Your task to perform on an android device: check google app version Image 0: 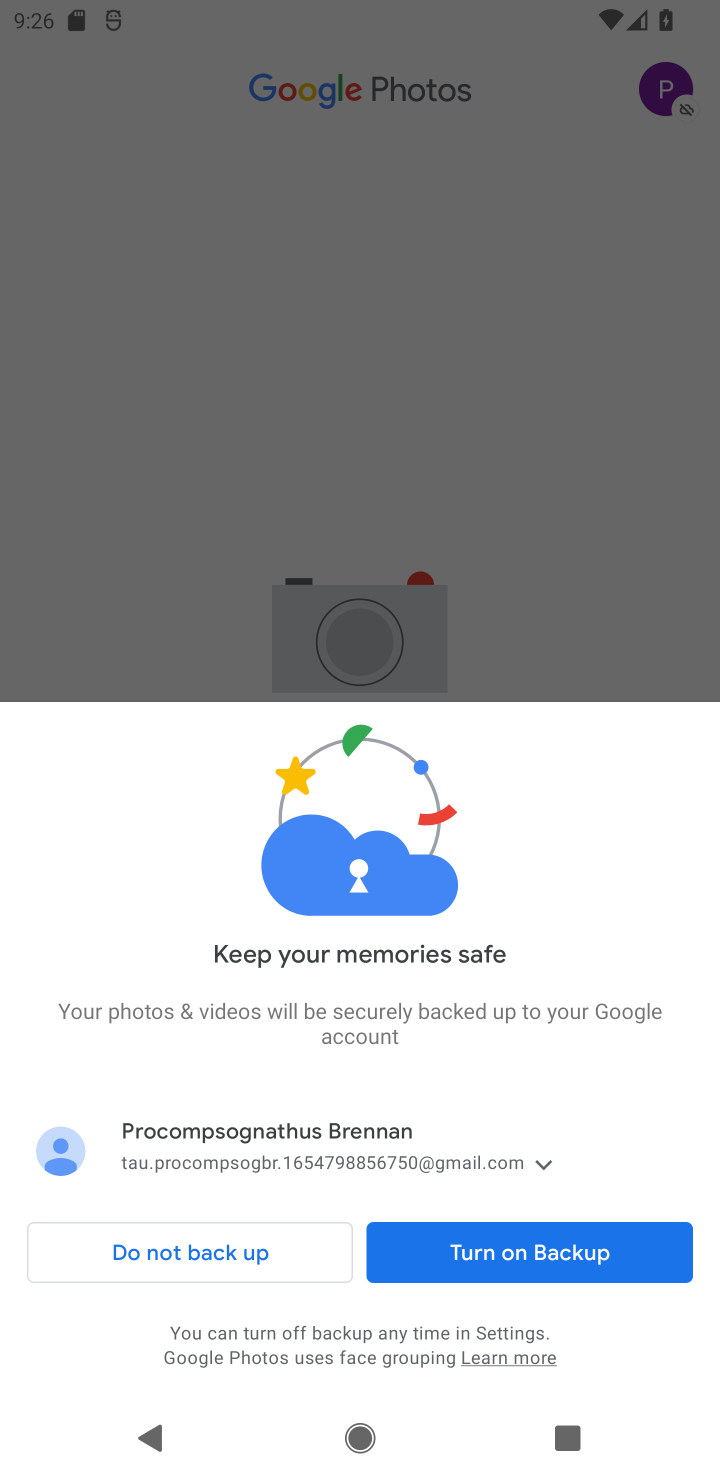
Step 0: click (556, 1256)
Your task to perform on an android device: check google app version Image 1: 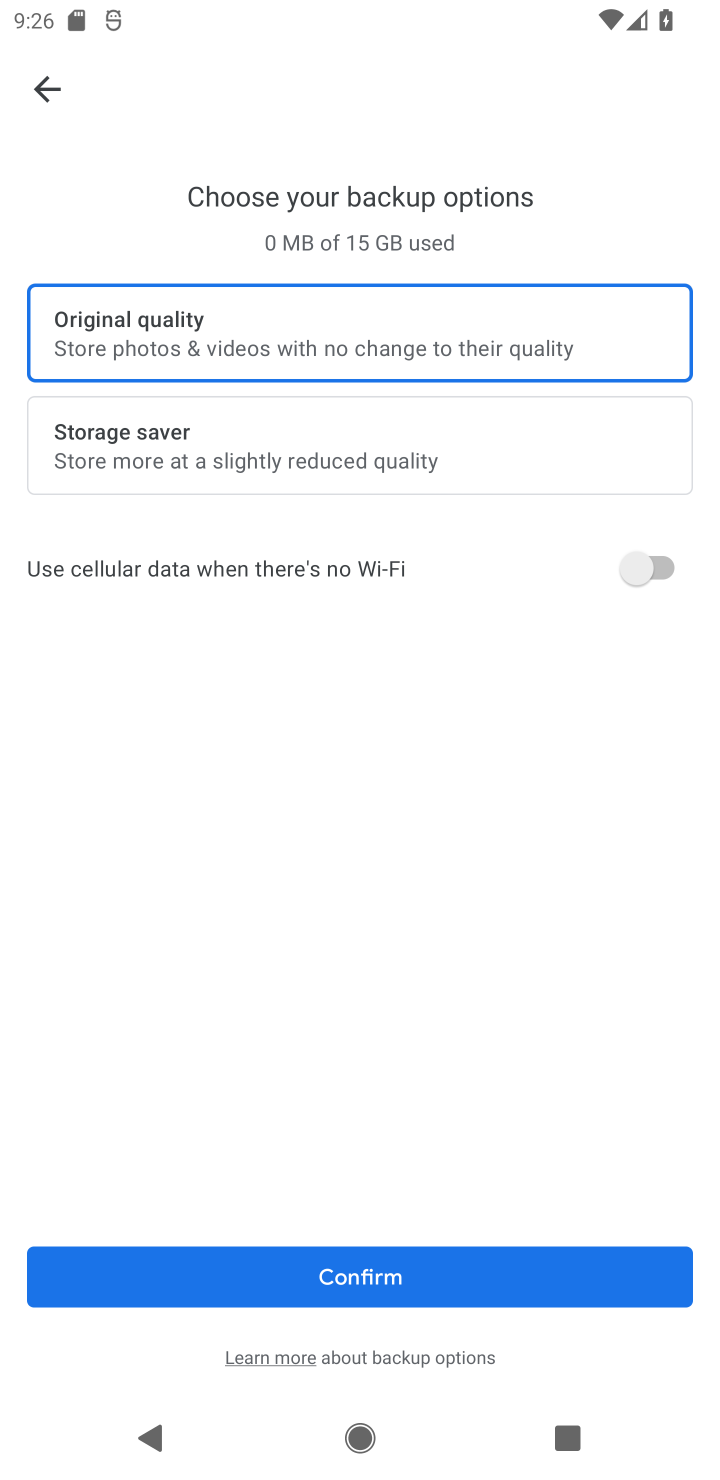
Step 1: click (417, 1283)
Your task to perform on an android device: check google app version Image 2: 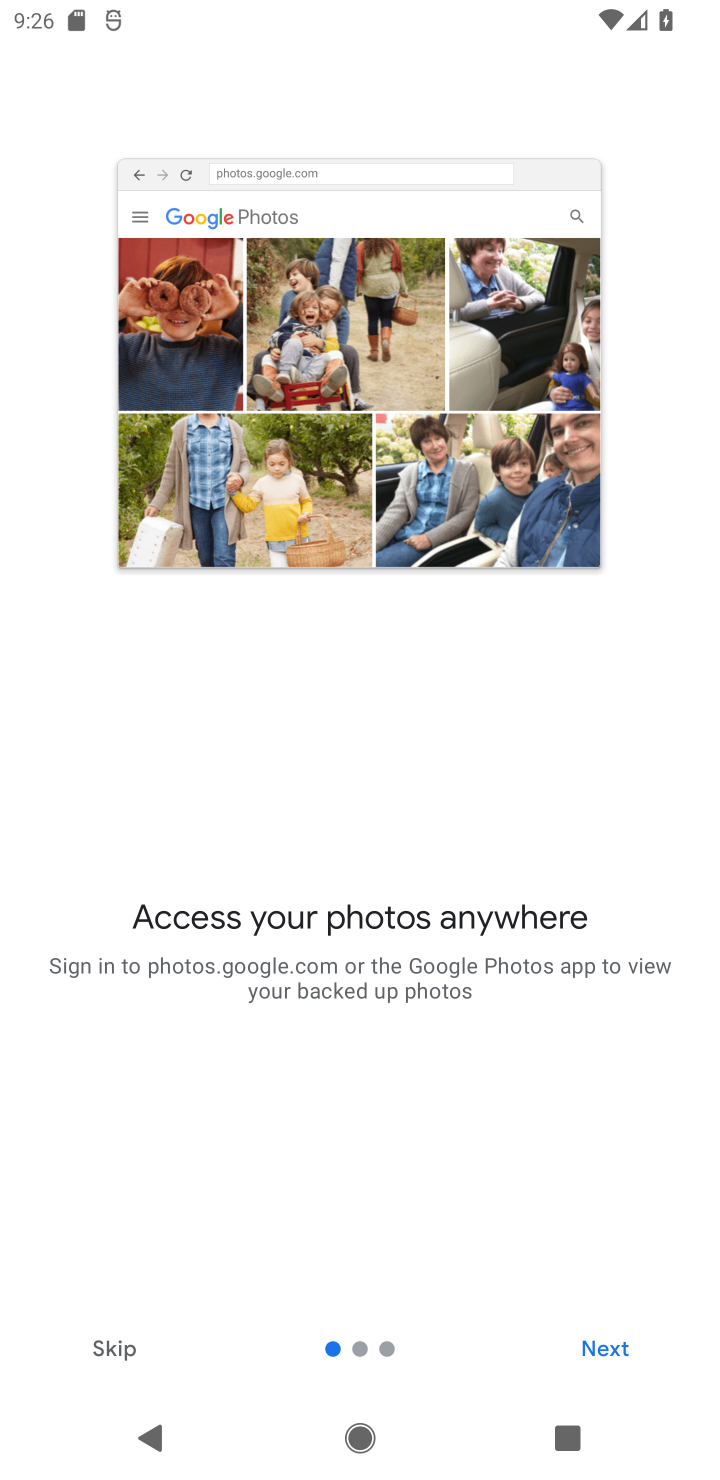
Step 2: press home button
Your task to perform on an android device: check google app version Image 3: 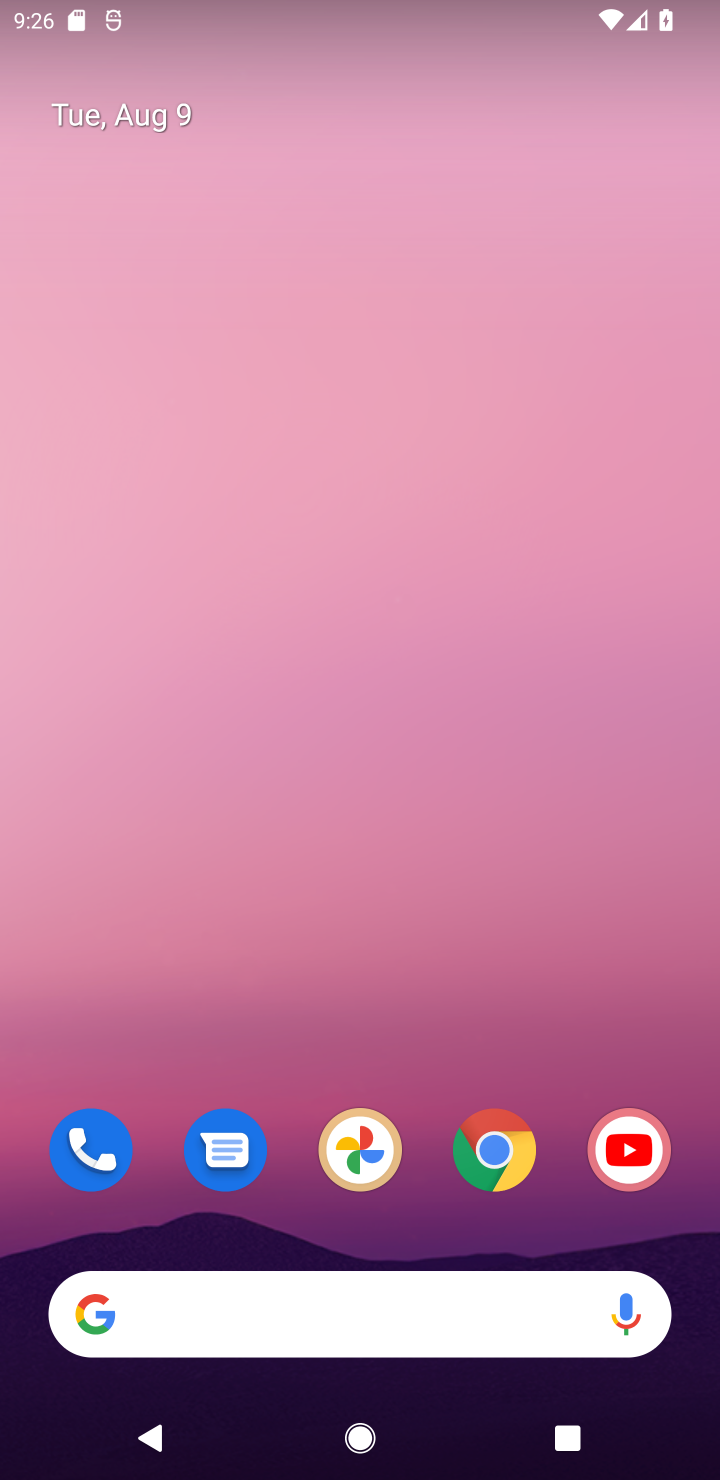
Step 3: click (496, 1138)
Your task to perform on an android device: check google app version Image 4: 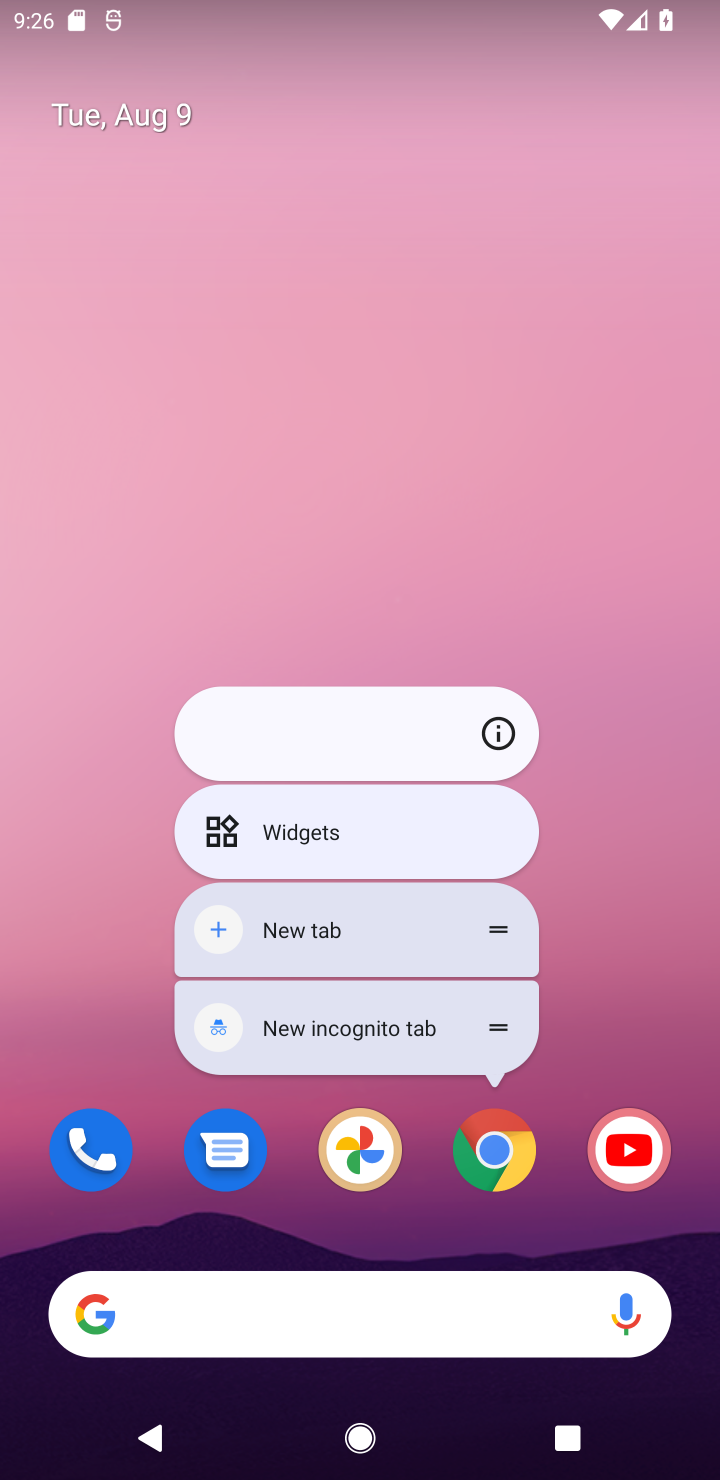
Step 4: click (497, 738)
Your task to perform on an android device: check google app version Image 5: 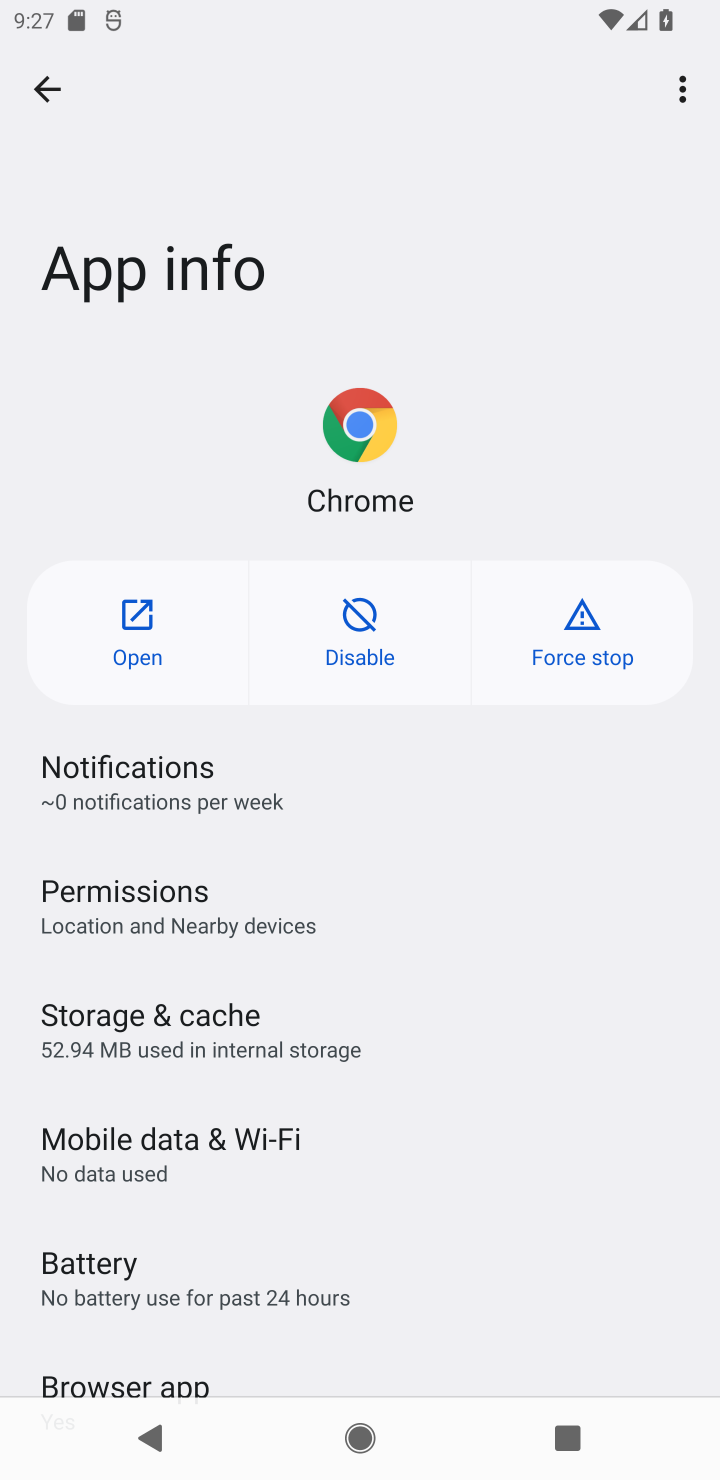
Step 5: task complete